Your task to perform on an android device: Set the phone to "Do not disturb". Image 0: 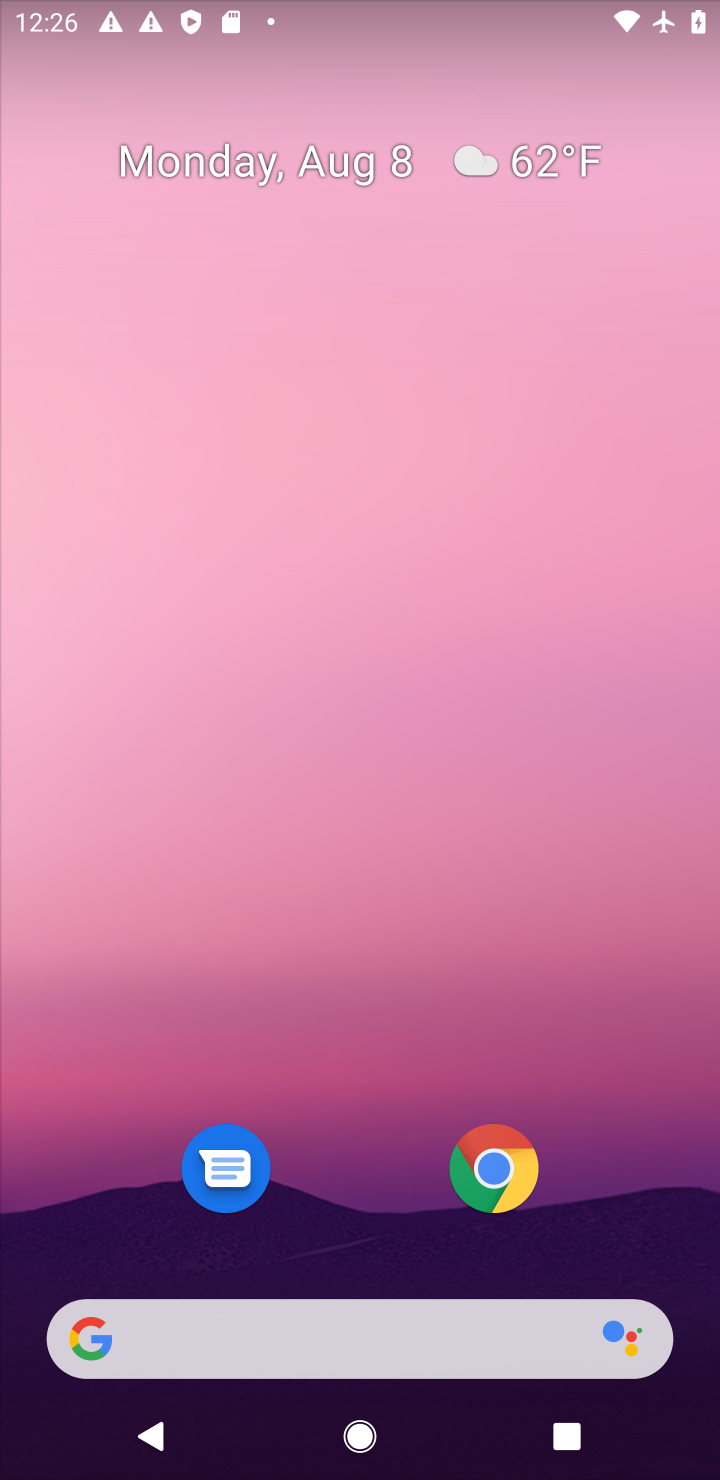
Step 0: drag from (344, 1271) to (246, 56)
Your task to perform on an android device: Set the phone to "Do not disturb". Image 1: 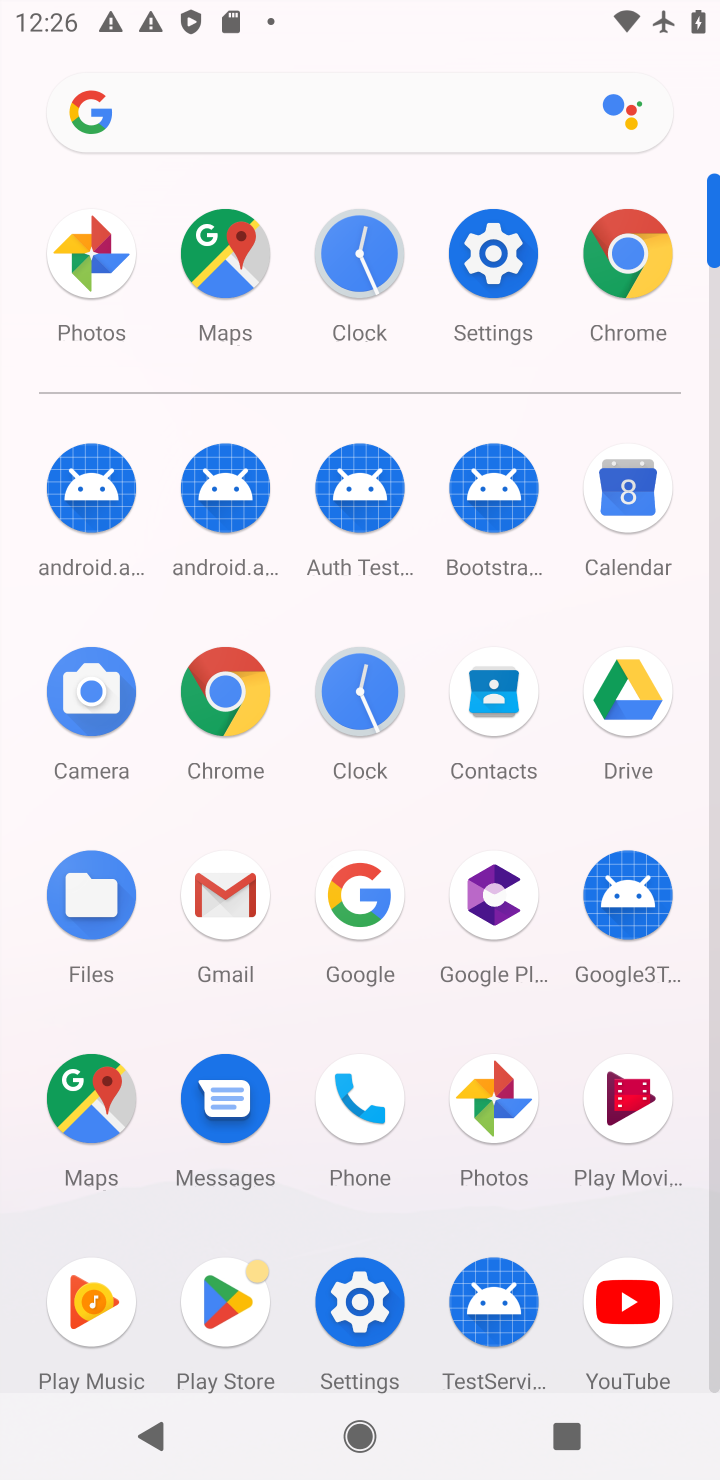
Step 1: click (519, 290)
Your task to perform on an android device: Set the phone to "Do not disturb". Image 2: 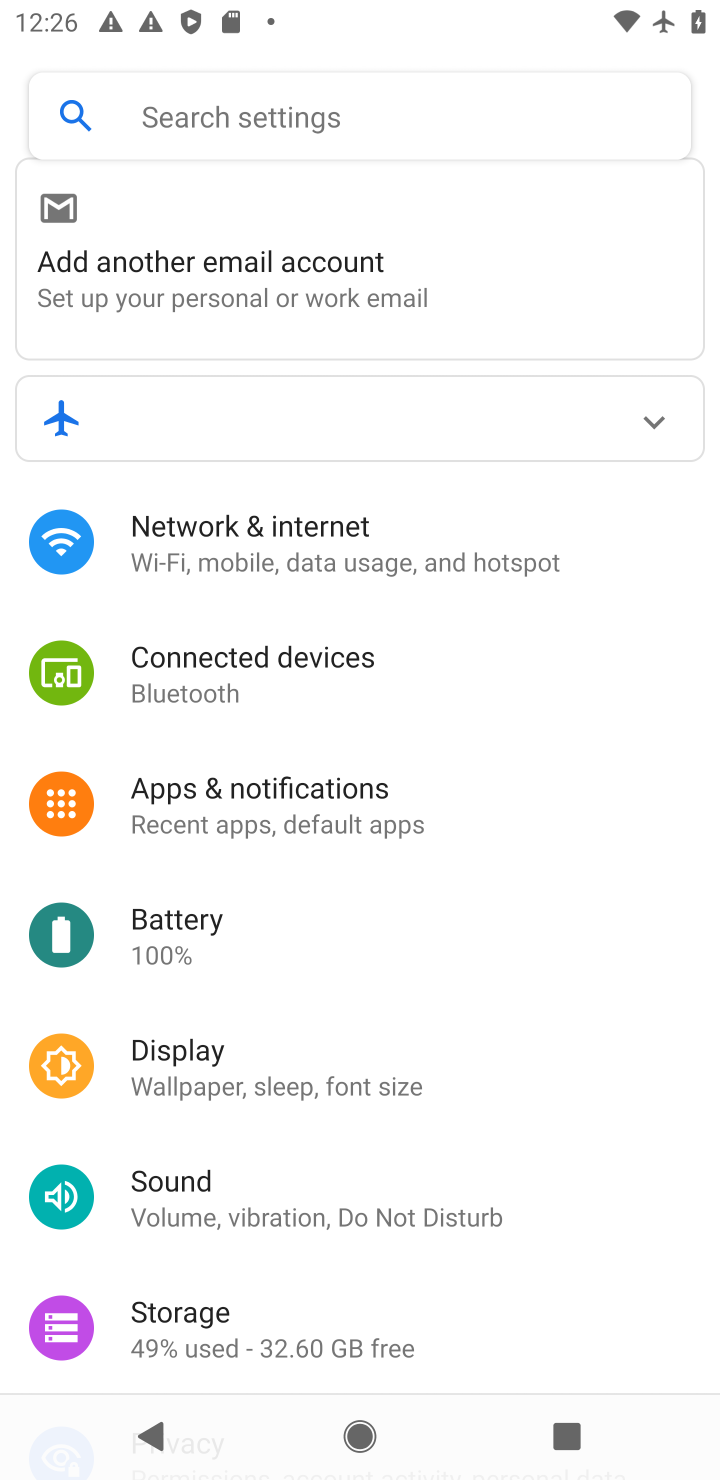
Step 2: click (529, 1223)
Your task to perform on an android device: Set the phone to "Do not disturb". Image 3: 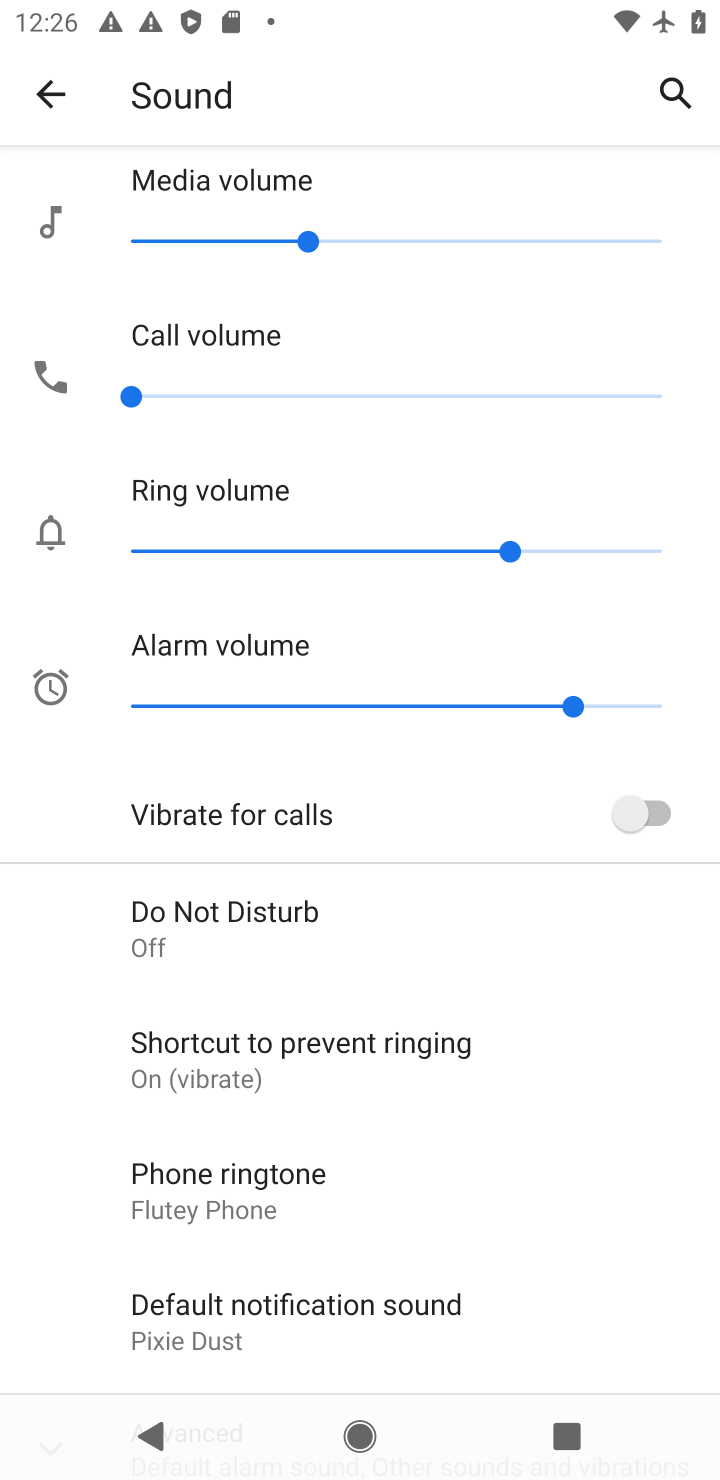
Step 3: task complete